Your task to perform on an android device: check out phone information Image 0: 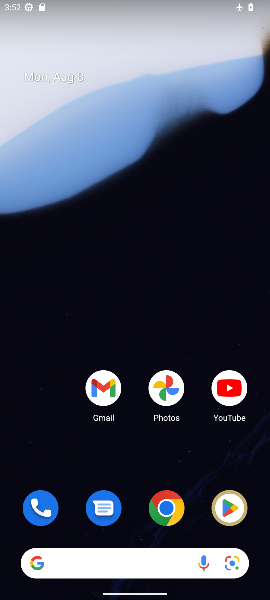
Step 0: drag from (143, 461) to (103, 23)
Your task to perform on an android device: check out phone information Image 1: 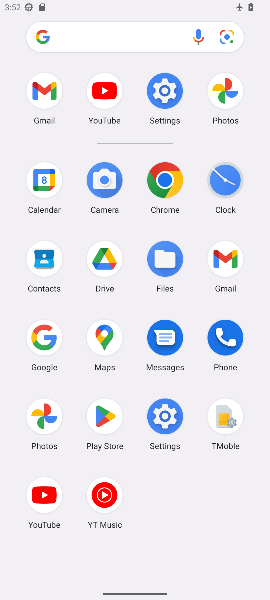
Step 1: click (168, 88)
Your task to perform on an android device: check out phone information Image 2: 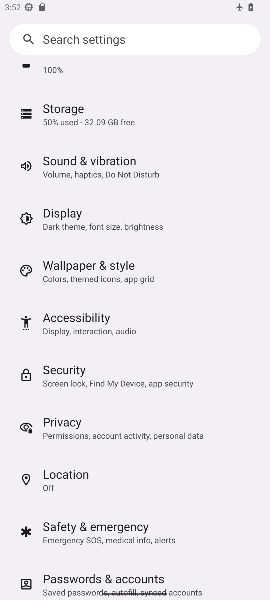
Step 2: drag from (159, 515) to (146, 107)
Your task to perform on an android device: check out phone information Image 3: 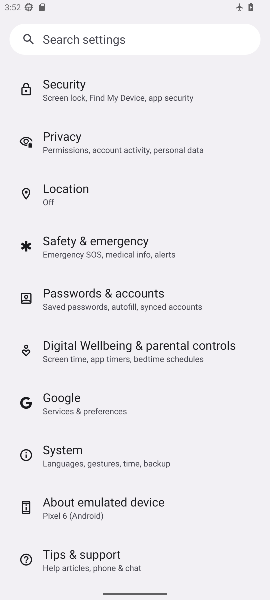
Step 3: click (88, 499)
Your task to perform on an android device: check out phone information Image 4: 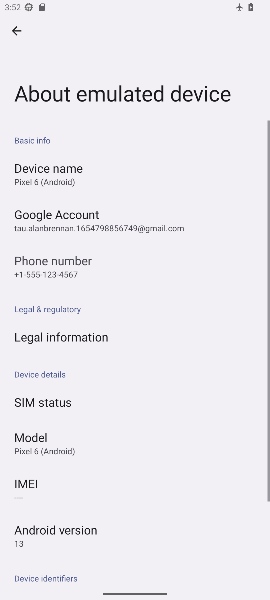
Step 4: task complete